Your task to perform on an android device: Show me productivity apps on the Play Store Image 0: 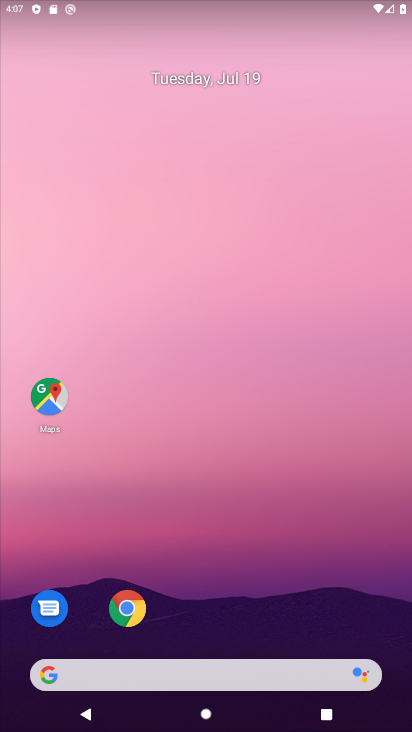
Step 0: drag from (159, 669) to (228, 17)
Your task to perform on an android device: Show me productivity apps on the Play Store Image 1: 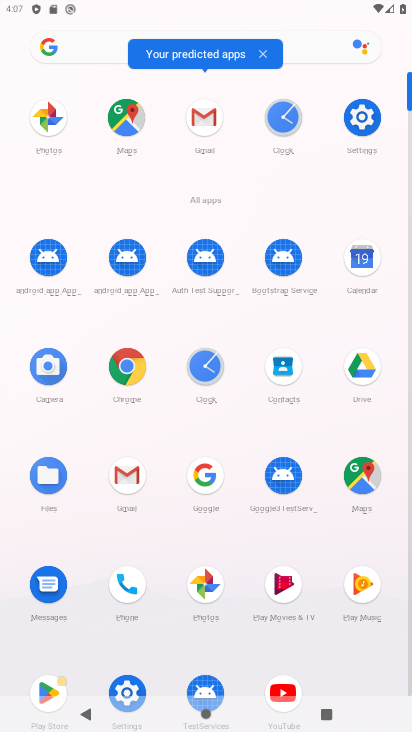
Step 1: drag from (239, 472) to (257, 209)
Your task to perform on an android device: Show me productivity apps on the Play Store Image 2: 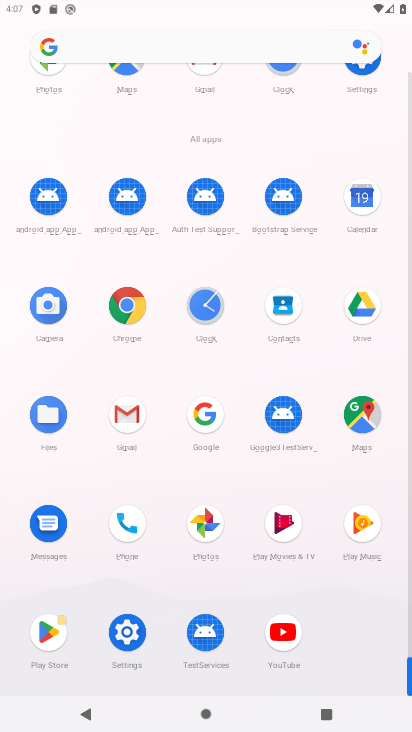
Step 2: click (54, 633)
Your task to perform on an android device: Show me productivity apps on the Play Store Image 3: 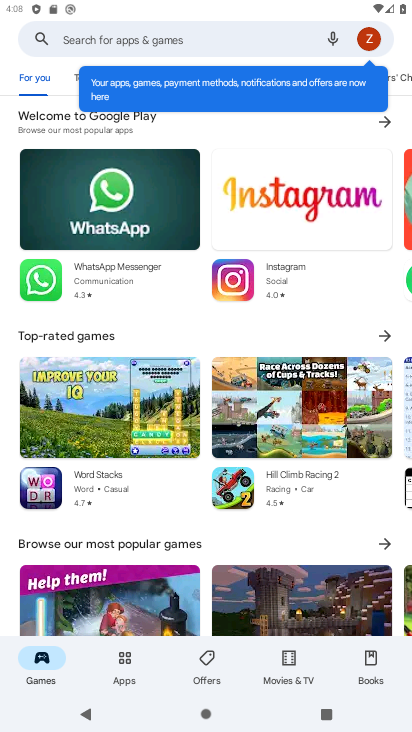
Step 3: click (124, 663)
Your task to perform on an android device: Show me productivity apps on the Play Store Image 4: 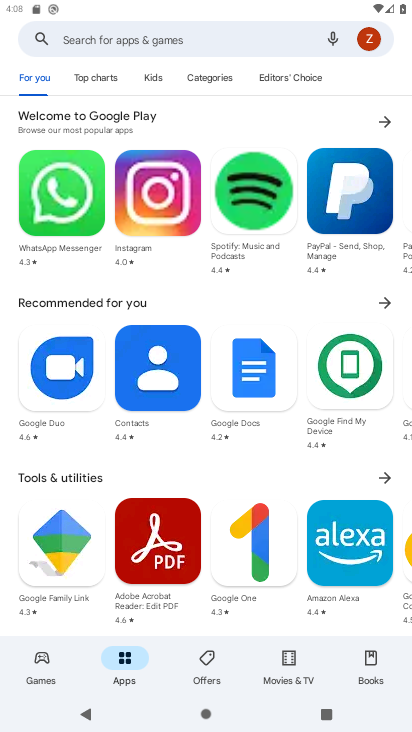
Step 4: click (213, 79)
Your task to perform on an android device: Show me productivity apps on the Play Store Image 5: 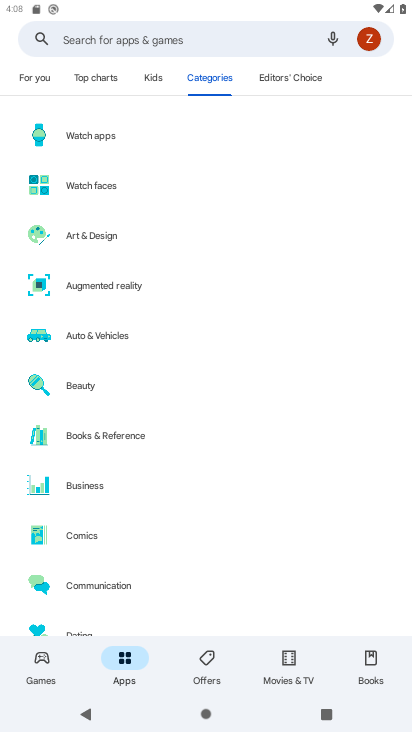
Step 5: drag from (111, 401) to (105, 270)
Your task to perform on an android device: Show me productivity apps on the Play Store Image 6: 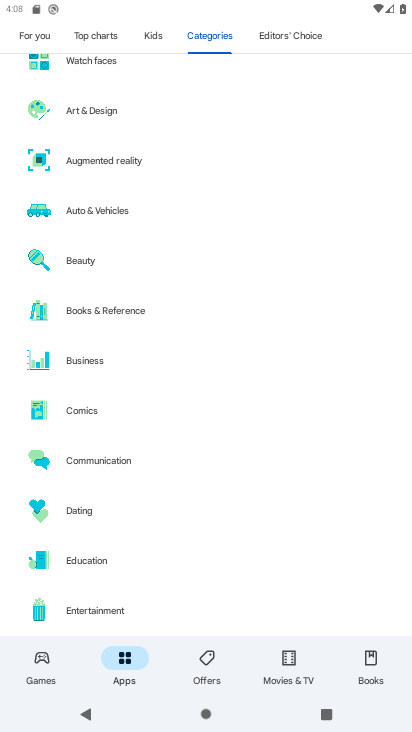
Step 6: drag from (115, 439) to (132, 337)
Your task to perform on an android device: Show me productivity apps on the Play Store Image 7: 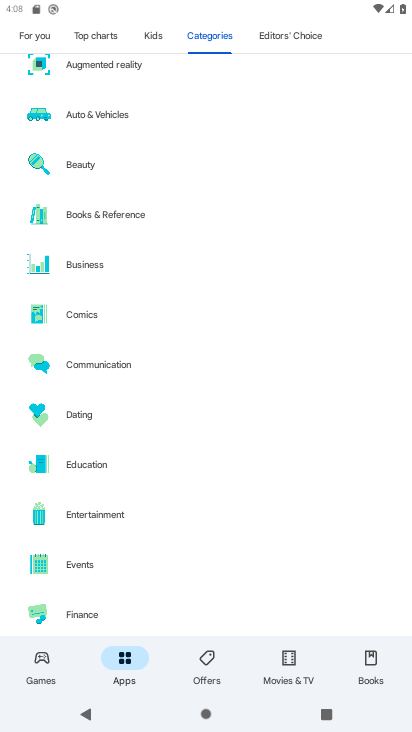
Step 7: drag from (108, 441) to (122, 350)
Your task to perform on an android device: Show me productivity apps on the Play Store Image 8: 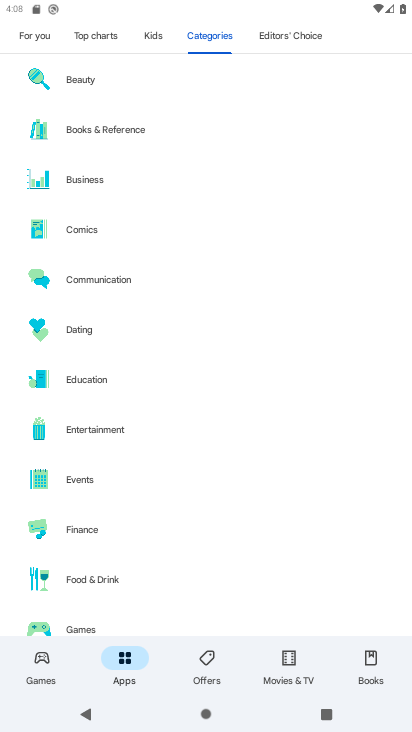
Step 8: drag from (102, 497) to (111, 379)
Your task to perform on an android device: Show me productivity apps on the Play Store Image 9: 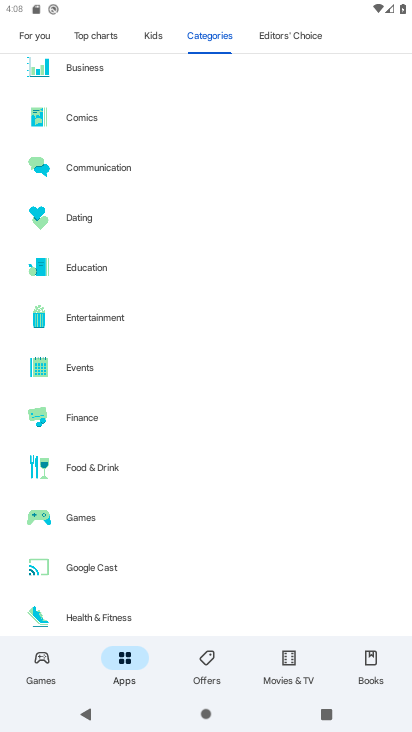
Step 9: drag from (97, 544) to (88, 353)
Your task to perform on an android device: Show me productivity apps on the Play Store Image 10: 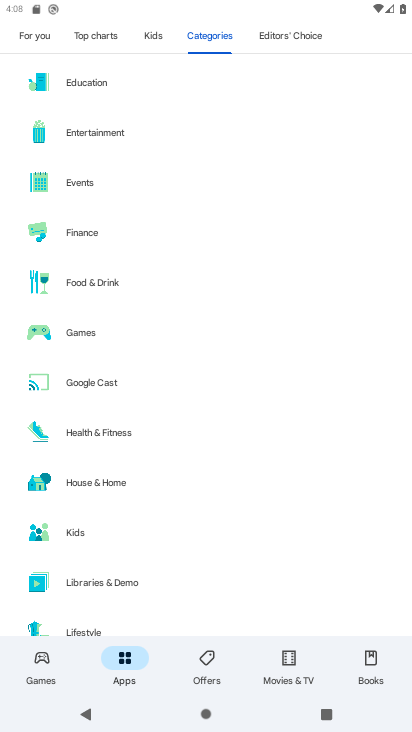
Step 10: drag from (105, 510) to (108, 321)
Your task to perform on an android device: Show me productivity apps on the Play Store Image 11: 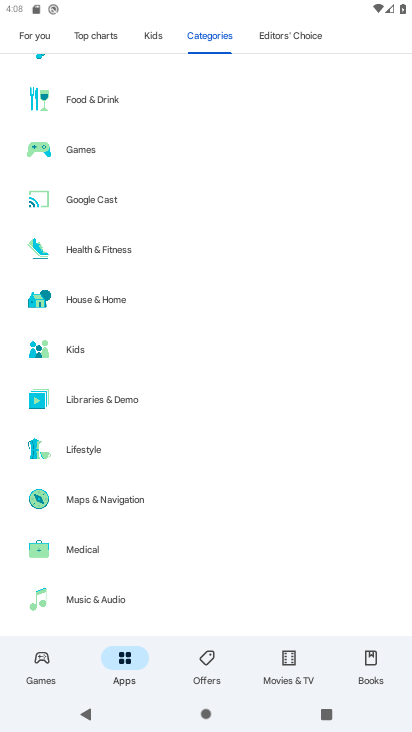
Step 11: drag from (95, 420) to (136, 211)
Your task to perform on an android device: Show me productivity apps on the Play Store Image 12: 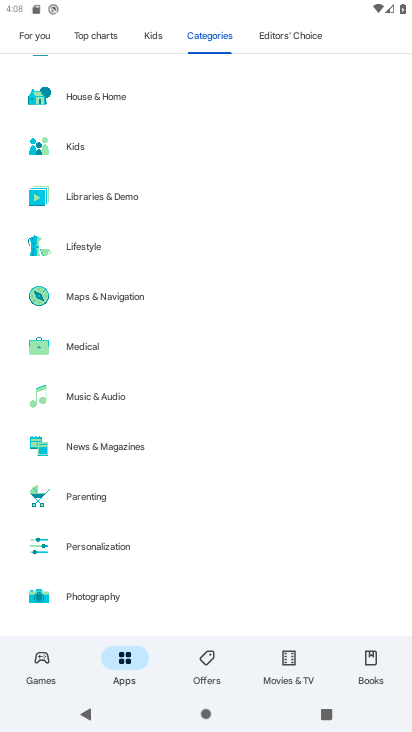
Step 12: drag from (110, 506) to (224, 325)
Your task to perform on an android device: Show me productivity apps on the Play Store Image 13: 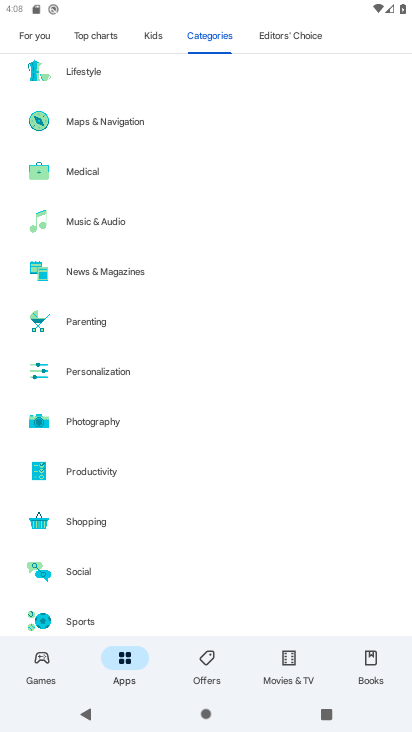
Step 13: click (107, 474)
Your task to perform on an android device: Show me productivity apps on the Play Store Image 14: 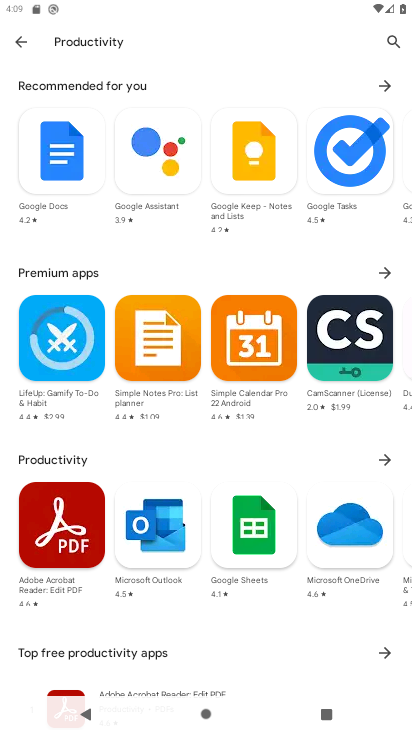
Step 14: task complete